Your task to perform on an android device: turn on airplane mode Image 0: 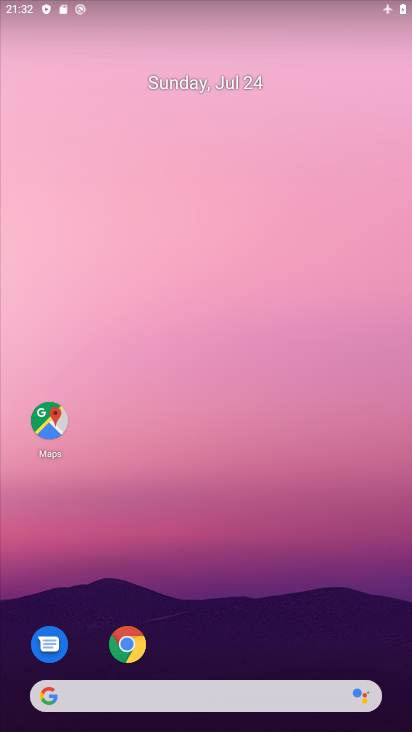
Step 0: drag from (376, 634) to (287, 127)
Your task to perform on an android device: turn on airplane mode Image 1: 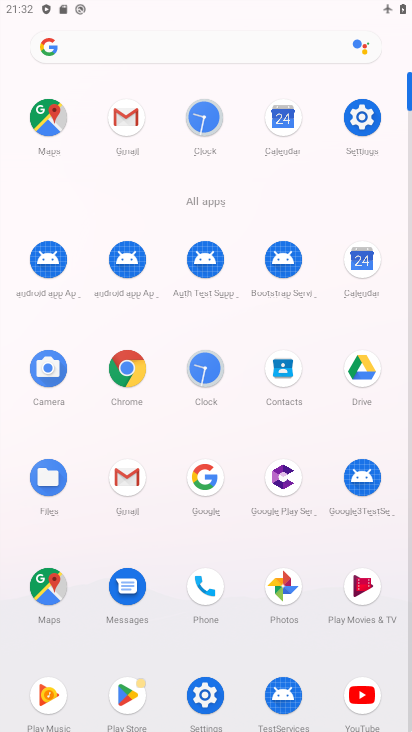
Step 1: click (205, 696)
Your task to perform on an android device: turn on airplane mode Image 2: 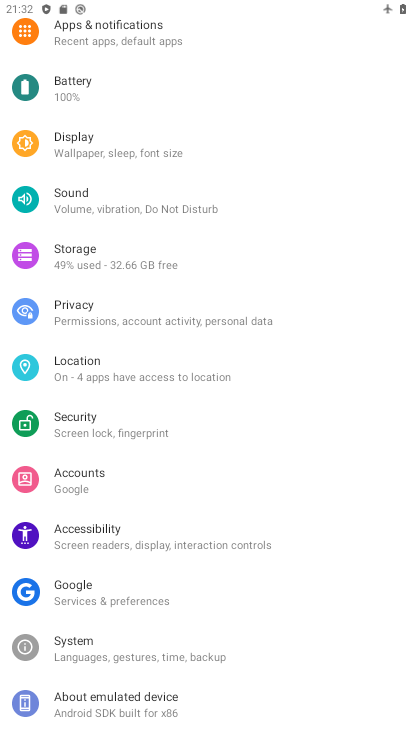
Step 2: drag from (285, 174) to (281, 548)
Your task to perform on an android device: turn on airplane mode Image 3: 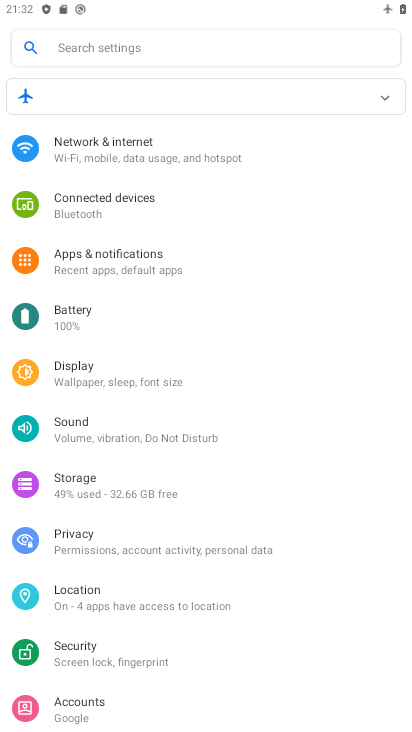
Step 3: click (96, 146)
Your task to perform on an android device: turn on airplane mode Image 4: 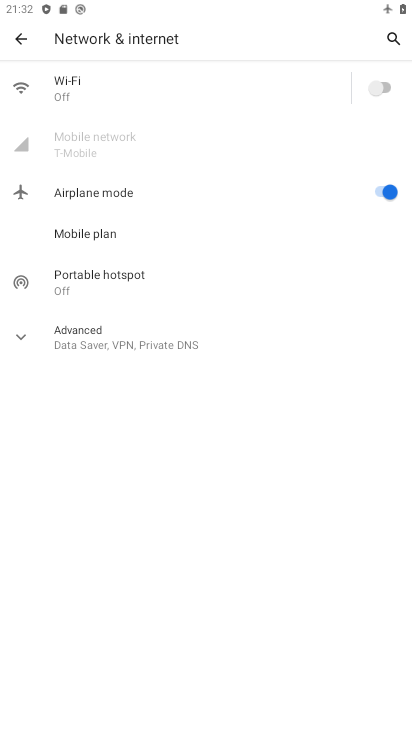
Step 4: task complete